Your task to perform on an android device: Open network settings Image 0: 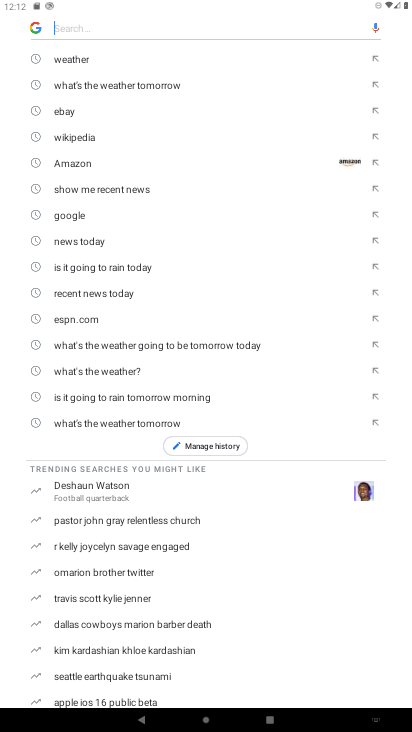
Step 0: press home button
Your task to perform on an android device: Open network settings Image 1: 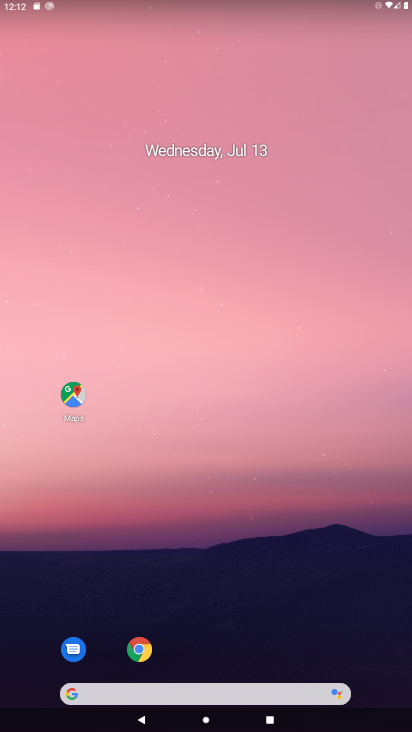
Step 1: drag from (393, 667) to (366, 150)
Your task to perform on an android device: Open network settings Image 2: 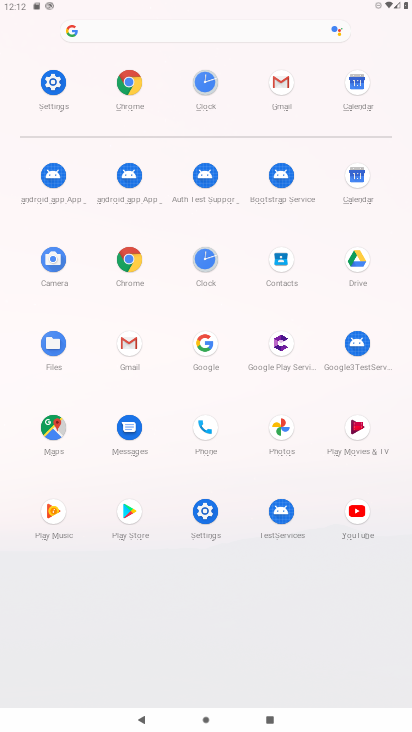
Step 2: click (204, 510)
Your task to perform on an android device: Open network settings Image 3: 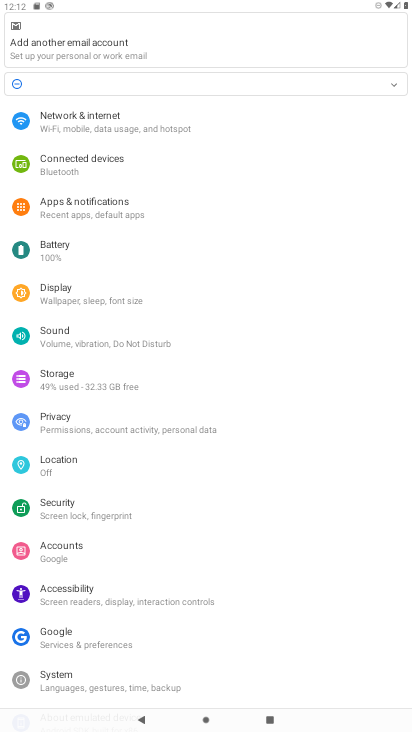
Step 3: click (84, 122)
Your task to perform on an android device: Open network settings Image 4: 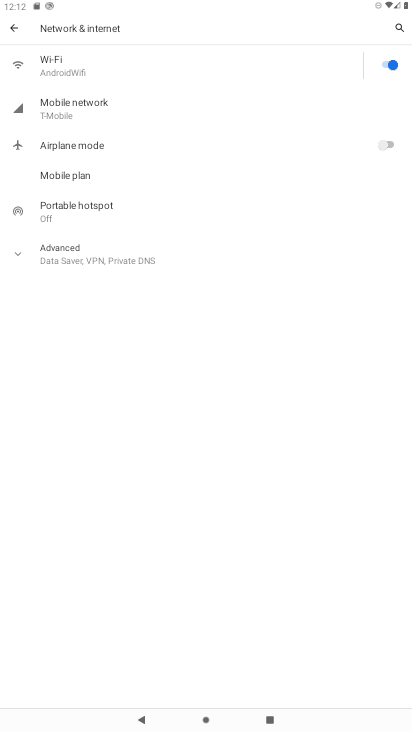
Step 4: click (44, 112)
Your task to perform on an android device: Open network settings Image 5: 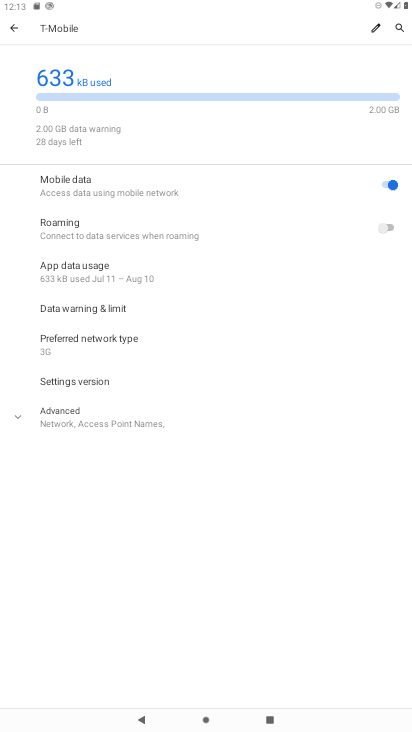
Step 5: click (16, 418)
Your task to perform on an android device: Open network settings Image 6: 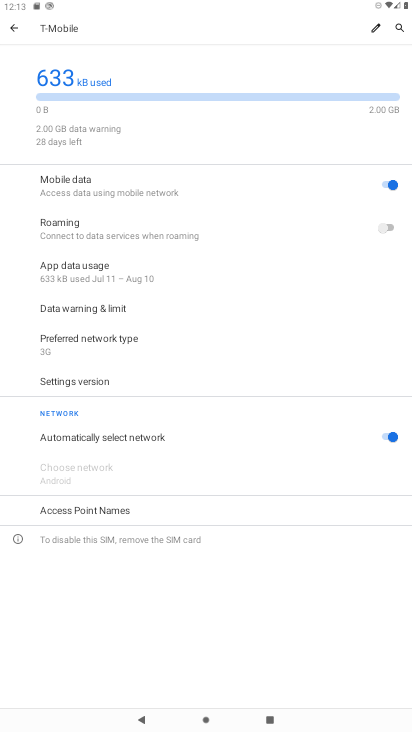
Step 6: task complete